Your task to perform on an android device: turn off priority inbox in the gmail app Image 0: 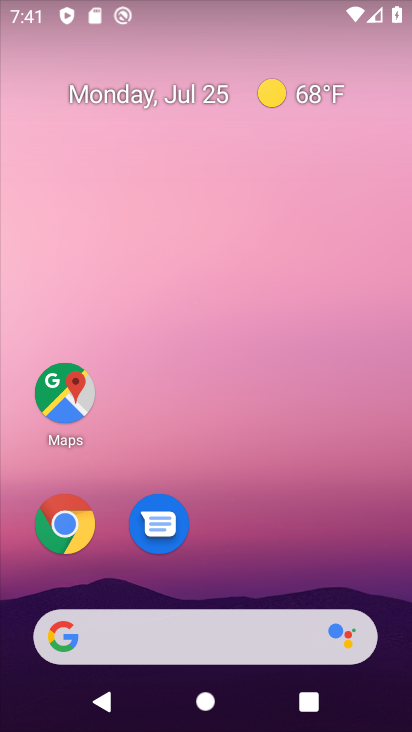
Step 0: drag from (283, 543) to (302, 23)
Your task to perform on an android device: turn off priority inbox in the gmail app Image 1: 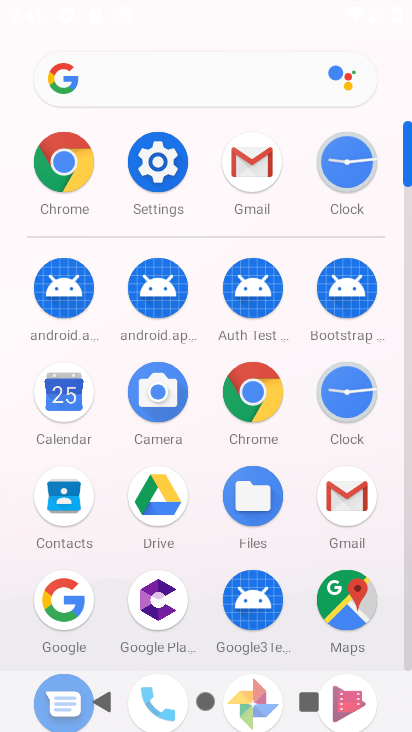
Step 1: click (253, 162)
Your task to perform on an android device: turn off priority inbox in the gmail app Image 2: 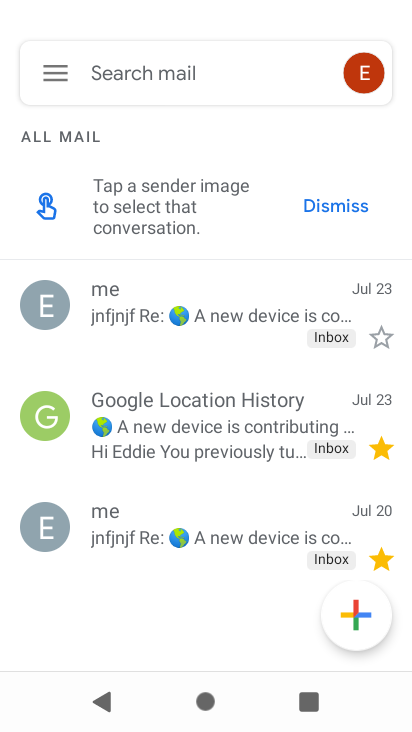
Step 2: click (61, 73)
Your task to perform on an android device: turn off priority inbox in the gmail app Image 3: 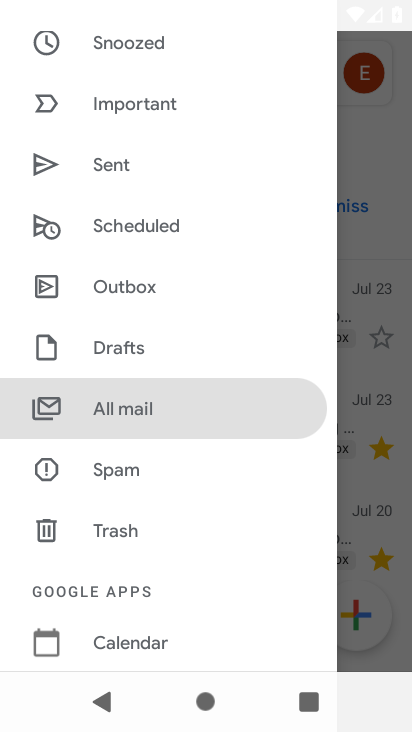
Step 3: drag from (179, 525) to (188, 231)
Your task to perform on an android device: turn off priority inbox in the gmail app Image 4: 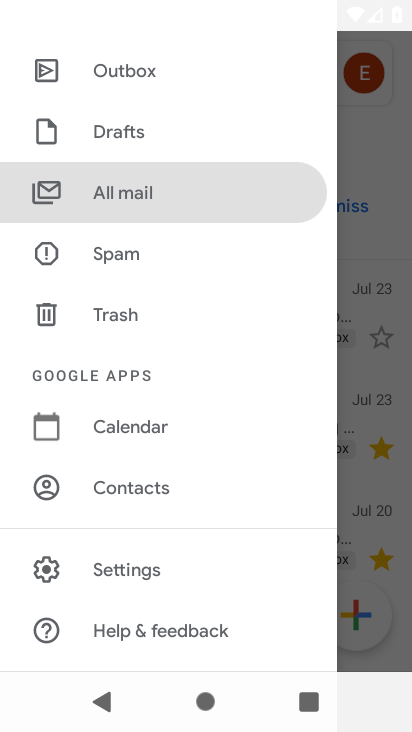
Step 4: click (147, 570)
Your task to perform on an android device: turn off priority inbox in the gmail app Image 5: 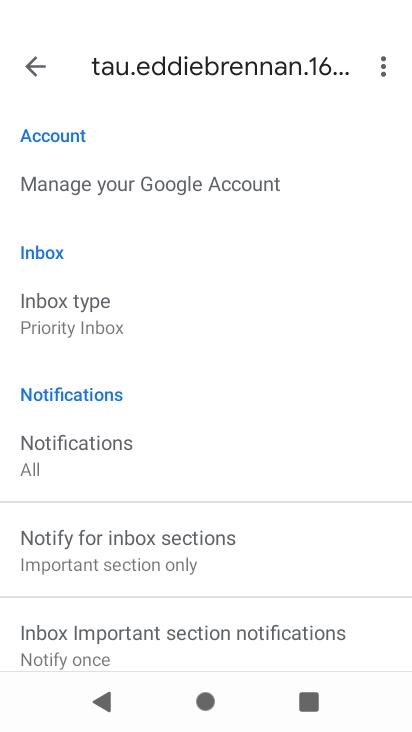
Step 5: click (77, 318)
Your task to perform on an android device: turn off priority inbox in the gmail app Image 6: 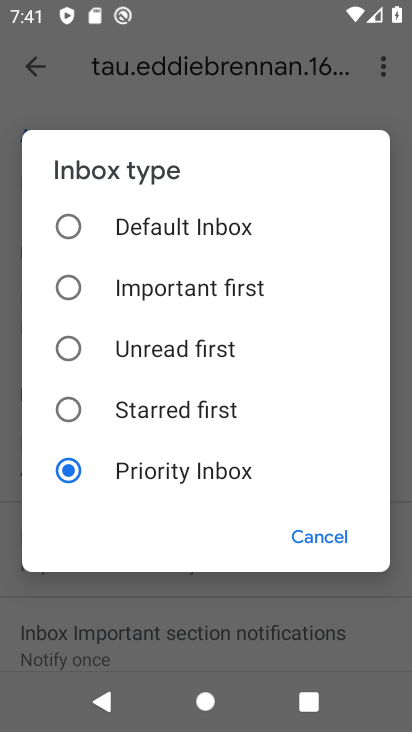
Step 6: click (61, 220)
Your task to perform on an android device: turn off priority inbox in the gmail app Image 7: 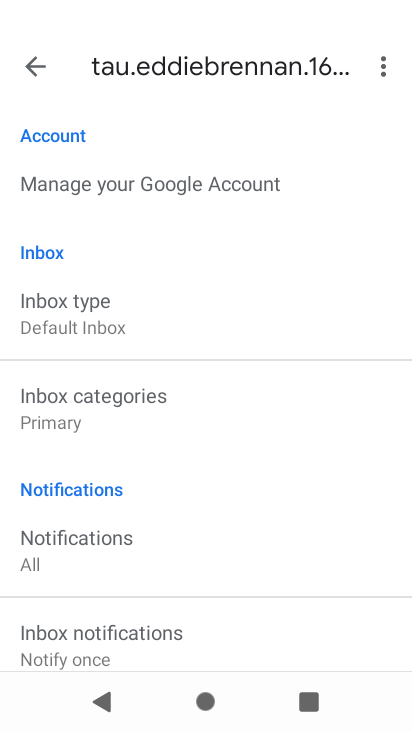
Step 7: task complete